Your task to perform on an android device: Find coffee shops on Maps Image 0: 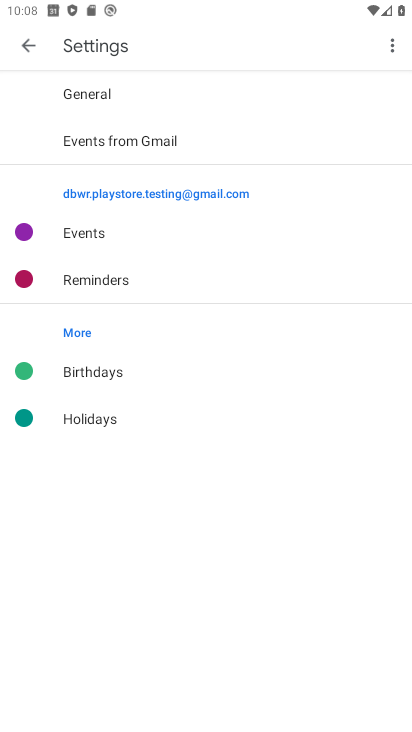
Step 0: press home button
Your task to perform on an android device: Find coffee shops on Maps Image 1: 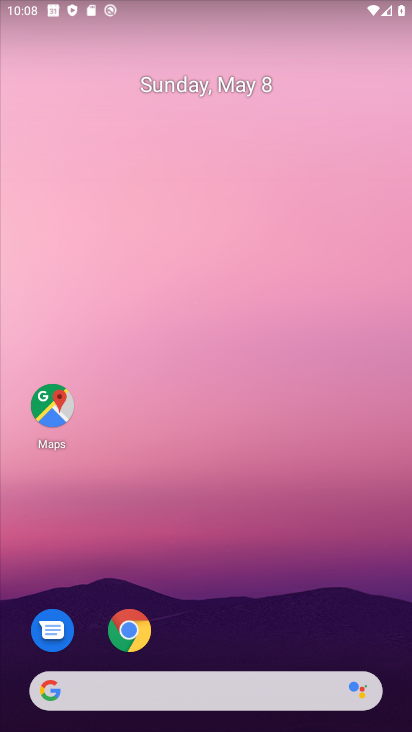
Step 1: drag from (209, 731) to (222, 137)
Your task to perform on an android device: Find coffee shops on Maps Image 2: 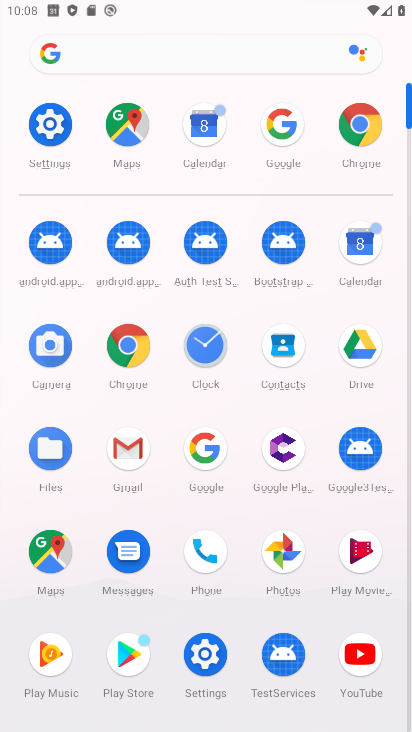
Step 2: click (51, 555)
Your task to perform on an android device: Find coffee shops on Maps Image 3: 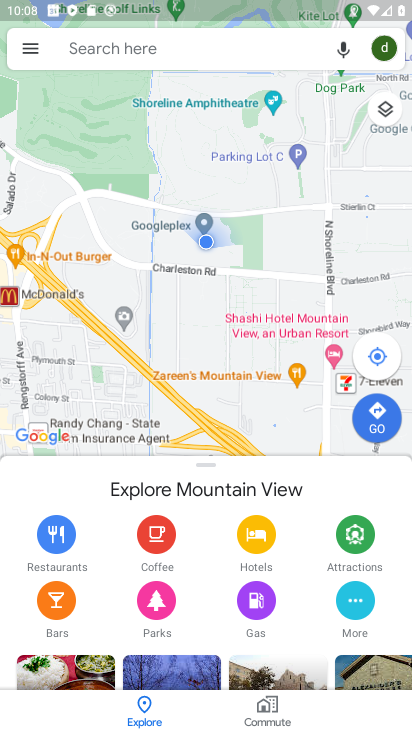
Step 3: click (141, 41)
Your task to perform on an android device: Find coffee shops on Maps Image 4: 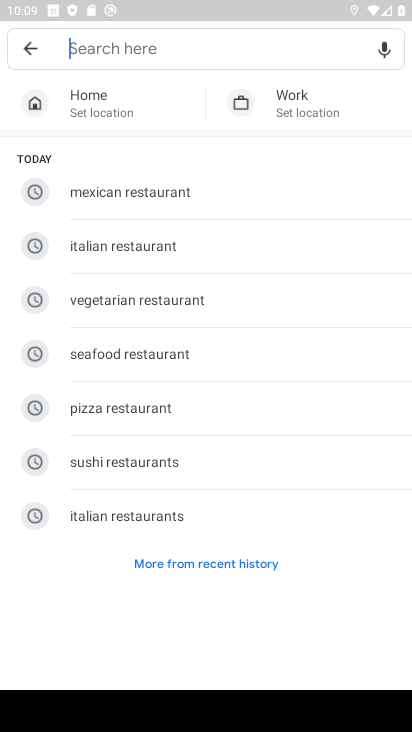
Step 4: type "coffee shops"
Your task to perform on an android device: Find coffee shops on Maps Image 5: 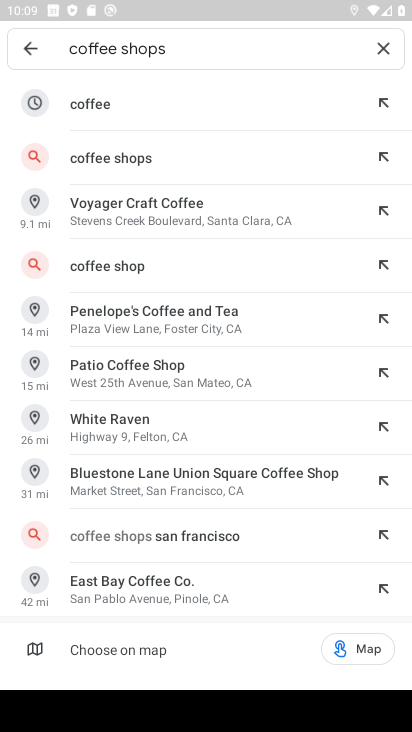
Step 5: click (124, 157)
Your task to perform on an android device: Find coffee shops on Maps Image 6: 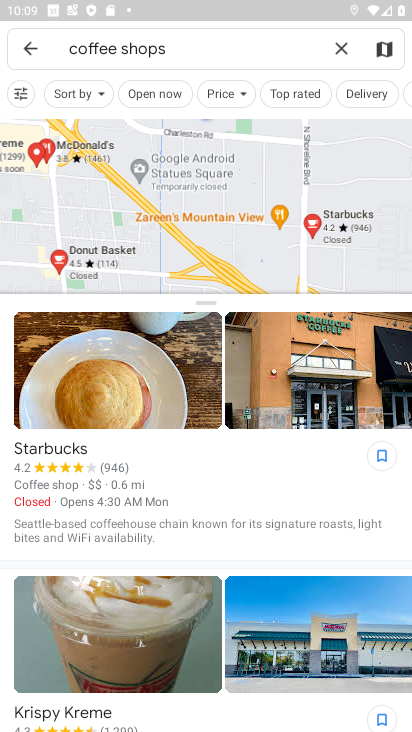
Step 6: task complete